Your task to perform on an android device: stop showing notifications on the lock screen Image 0: 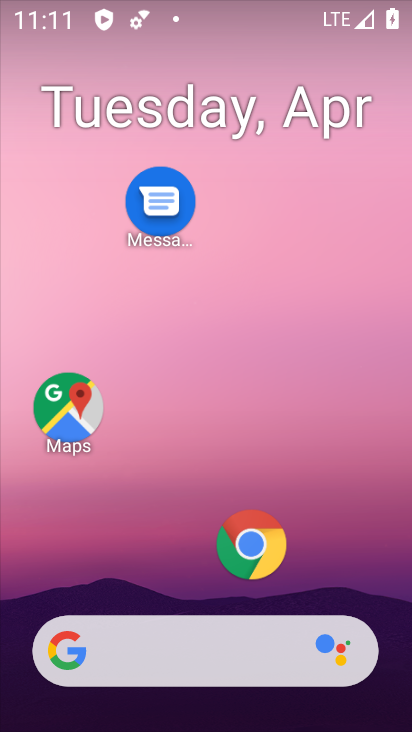
Step 0: drag from (179, 588) to (283, 20)
Your task to perform on an android device: stop showing notifications on the lock screen Image 1: 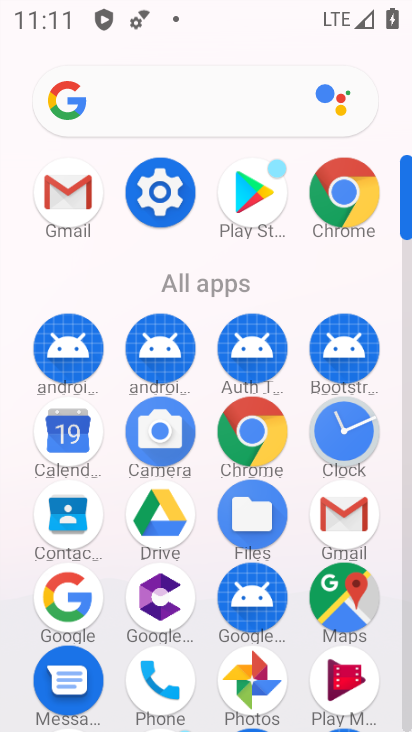
Step 1: click (147, 185)
Your task to perform on an android device: stop showing notifications on the lock screen Image 2: 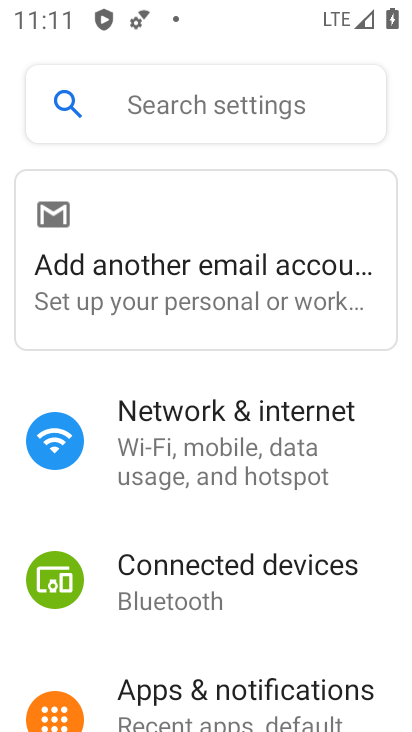
Step 2: click (233, 702)
Your task to perform on an android device: stop showing notifications on the lock screen Image 3: 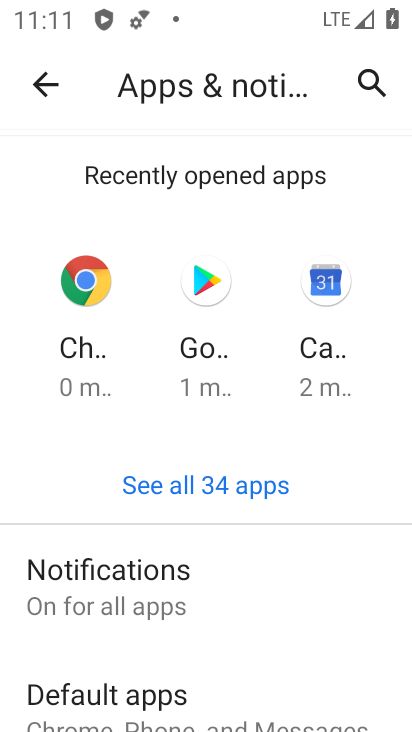
Step 3: click (146, 590)
Your task to perform on an android device: stop showing notifications on the lock screen Image 4: 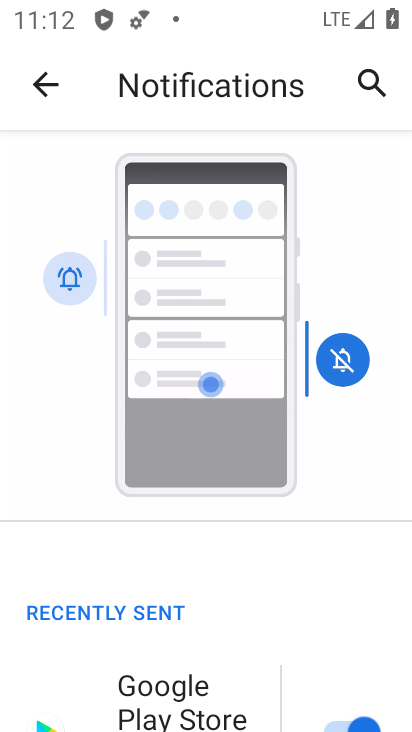
Step 4: drag from (196, 577) to (278, 167)
Your task to perform on an android device: stop showing notifications on the lock screen Image 5: 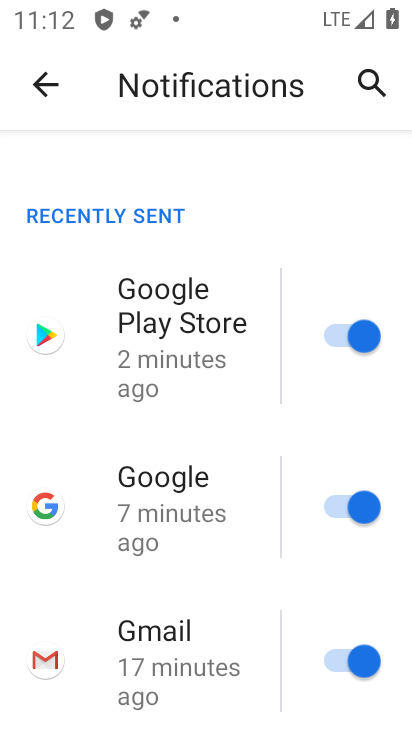
Step 5: drag from (178, 603) to (281, 96)
Your task to perform on an android device: stop showing notifications on the lock screen Image 6: 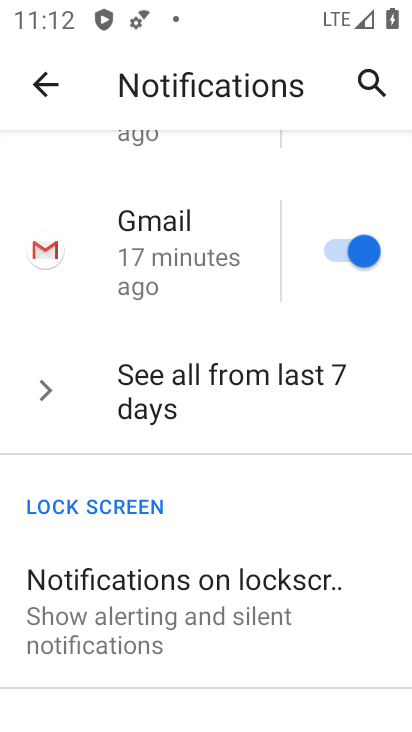
Step 6: click (152, 617)
Your task to perform on an android device: stop showing notifications on the lock screen Image 7: 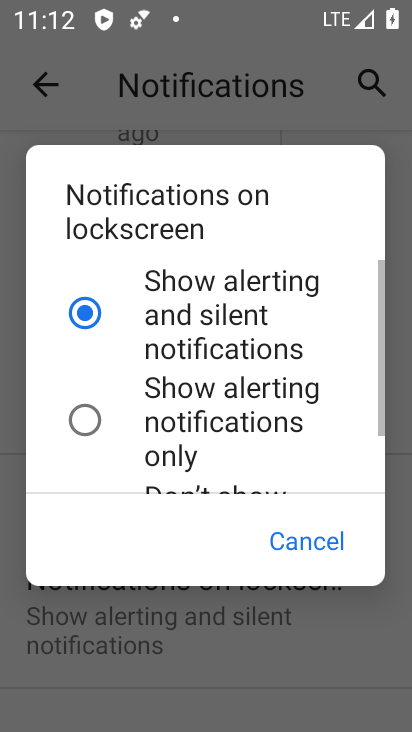
Step 7: drag from (147, 391) to (189, 210)
Your task to perform on an android device: stop showing notifications on the lock screen Image 8: 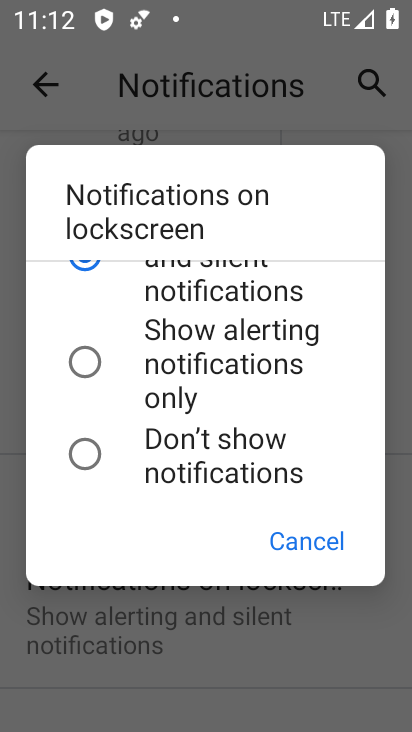
Step 8: click (83, 448)
Your task to perform on an android device: stop showing notifications on the lock screen Image 9: 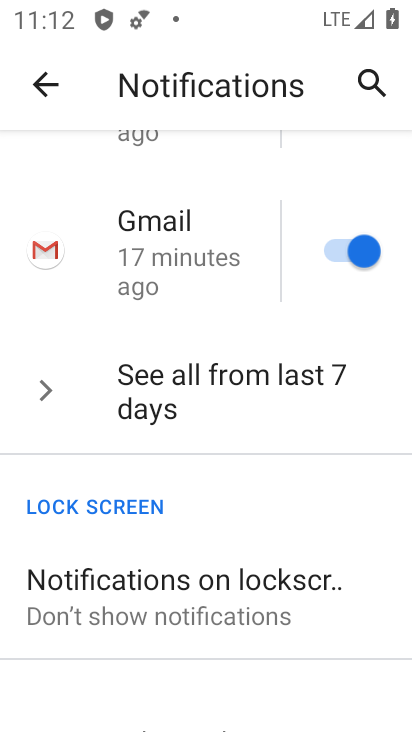
Step 9: task complete